Your task to perform on an android device: turn on bluetooth scan Image 0: 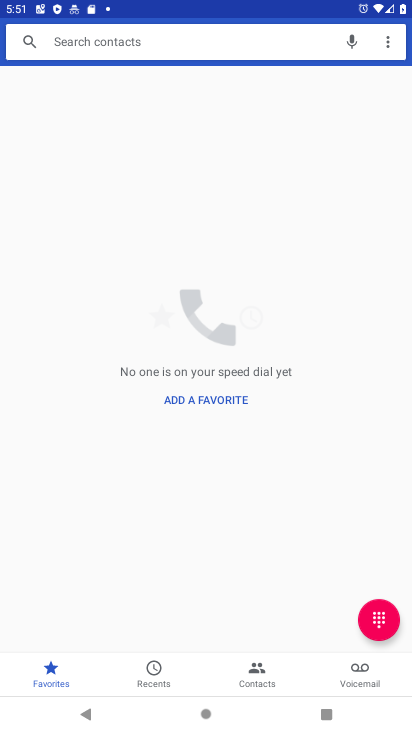
Step 0: press home button
Your task to perform on an android device: turn on bluetooth scan Image 1: 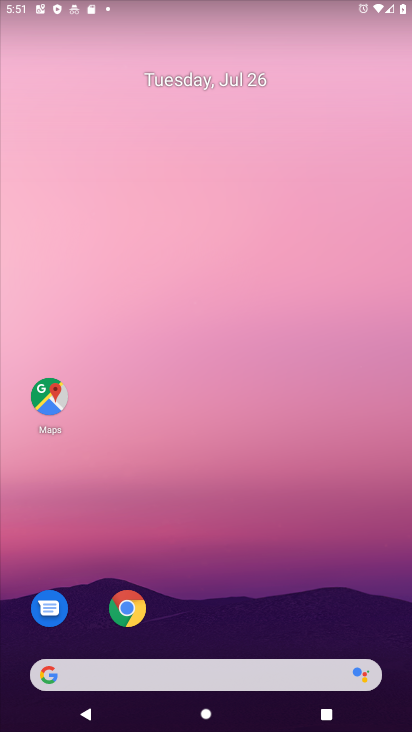
Step 1: drag from (168, 642) to (161, 89)
Your task to perform on an android device: turn on bluetooth scan Image 2: 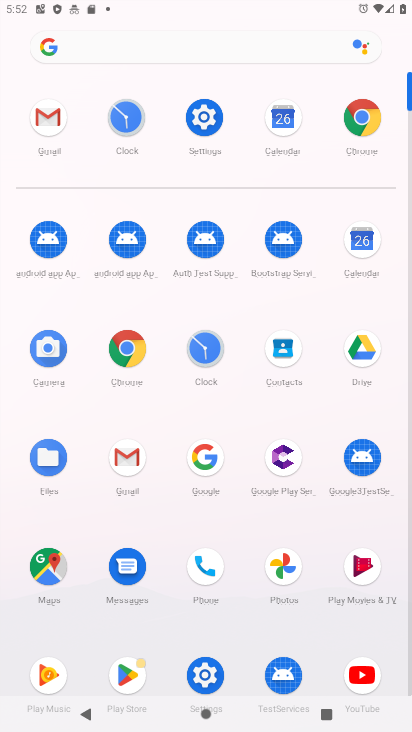
Step 2: click (184, 114)
Your task to perform on an android device: turn on bluetooth scan Image 3: 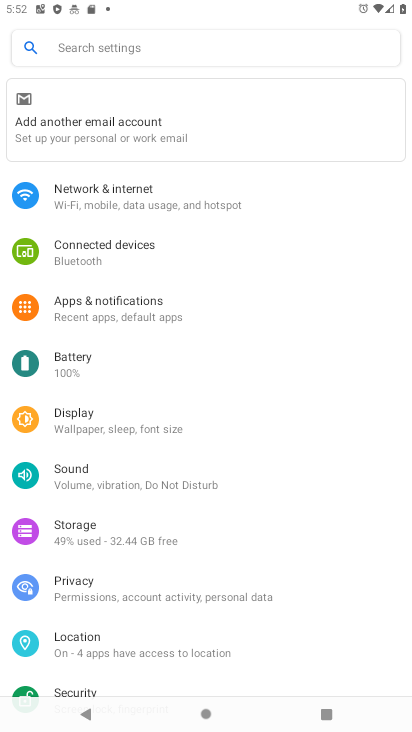
Step 3: click (88, 638)
Your task to perform on an android device: turn on bluetooth scan Image 4: 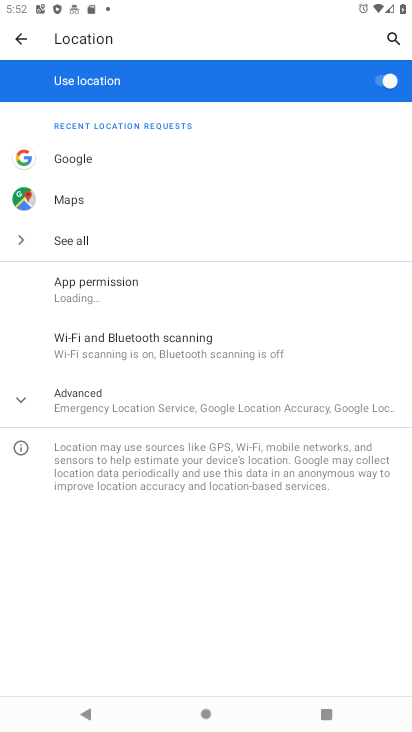
Step 4: click (113, 351)
Your task to perform on an android device: turn on bluetooth scan Image 5: 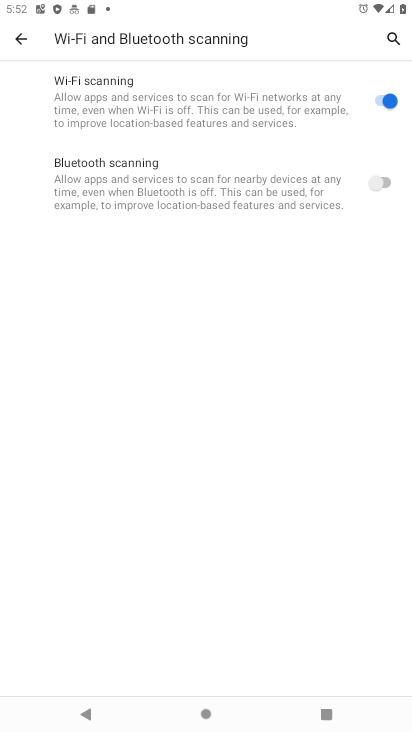
Step 5: click (374, 174)
Your task to perform on an android device: turn on bluetooth scan Image 6: 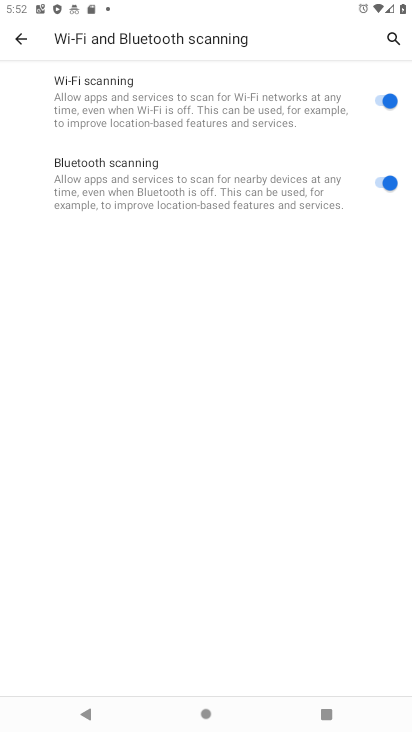
Step 6: task complete